Your task to perform on an android device: open app "Gmail" (install if not already installed) Image 0: 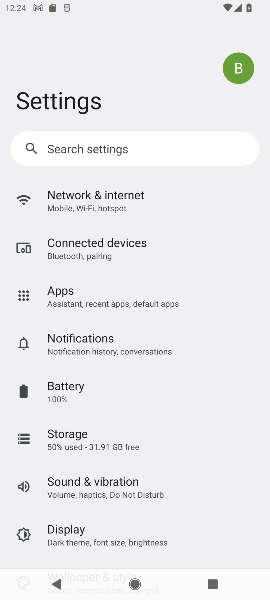
Step 0: press home button
Your task to perform on an android device: open app "Gmail" (install if not already installed) Image 1: 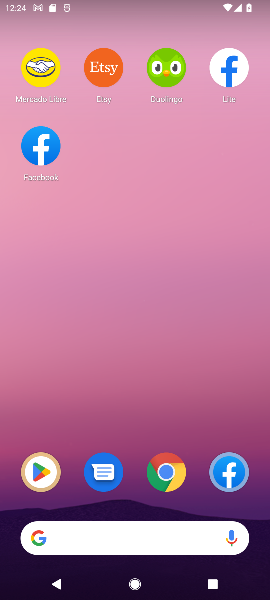
Step 1: click (43, 476)
Your task to perform on an android device: open app "Gmail" (install if not already installed) Image 2: 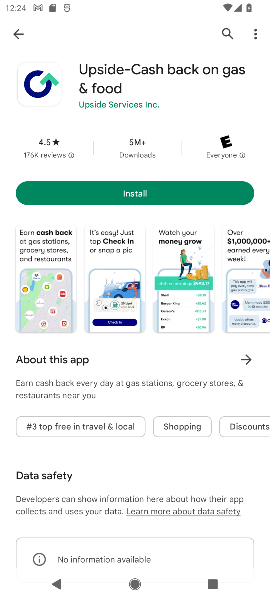
Step 2: click (224, 32)
Your task to perform on an android device: open app "Gmail" (install if not already installed) Image 3: 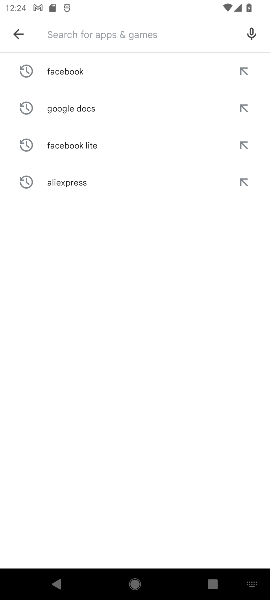
Step 3: type "gmail"
Your task to perform on an android device: open app "Gmail" (install if not already installed) Image 4: 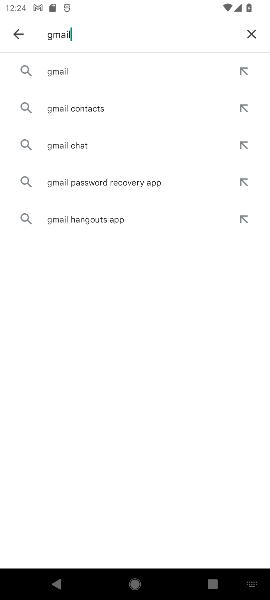
Step 4: click (62, 71)
Your task to perform on an android device: open app "Gmail" (install if not already installed) Image 5: 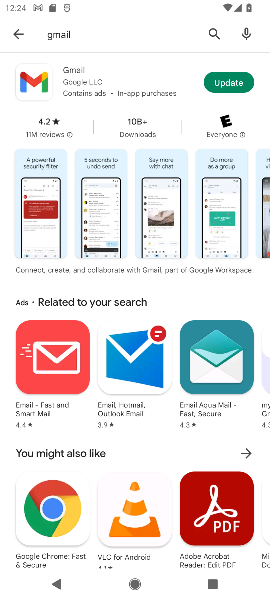
Step 5: click (92, 67)
Your task to perform on an android device: open app "Gmail" (install if not already installed) Image 6: 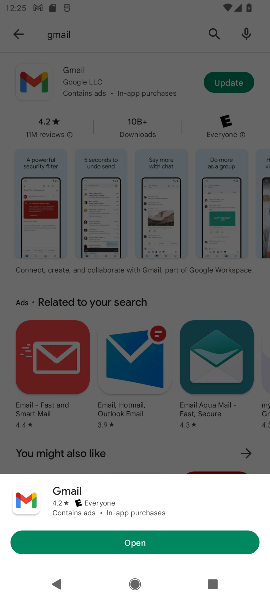
Step 6: click (114, 541)
Your task to perform on an android device: open app "Gmail" (install if not already installed) Image 7: 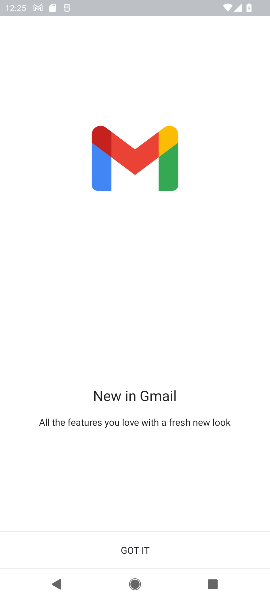
Step 7: task complete